Your task to perform on an android device: stop showing notifications on the lock screen Image 0: 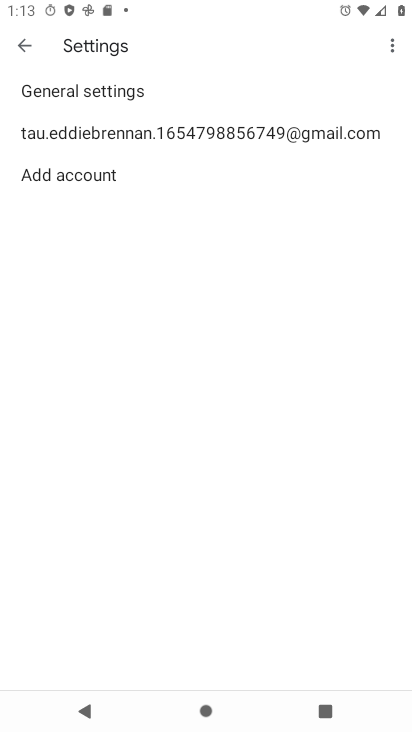
Step 0: press home button
Your task to perform on an android device: stop showing notifications on the lock screen Image 1: 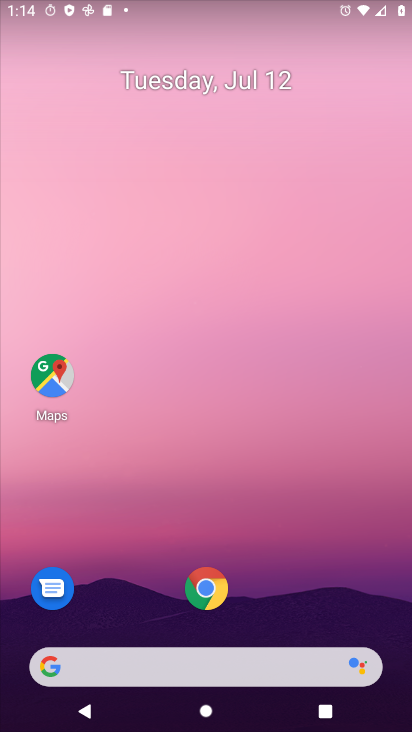
Step 1: drag from (197, 657) to (265, 30)
Your task to perform on an android device: stop showing notifications on the lock screen Image 2: 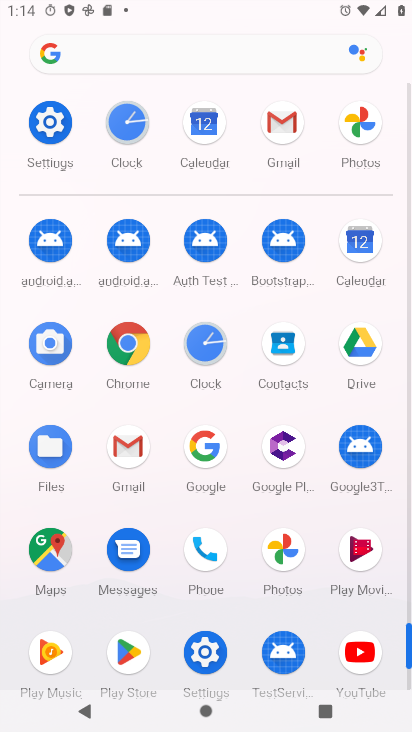
Step 2: click (51, 128)
Your task to perform on an android device: stop showing notifications on the lock screen Image 3: 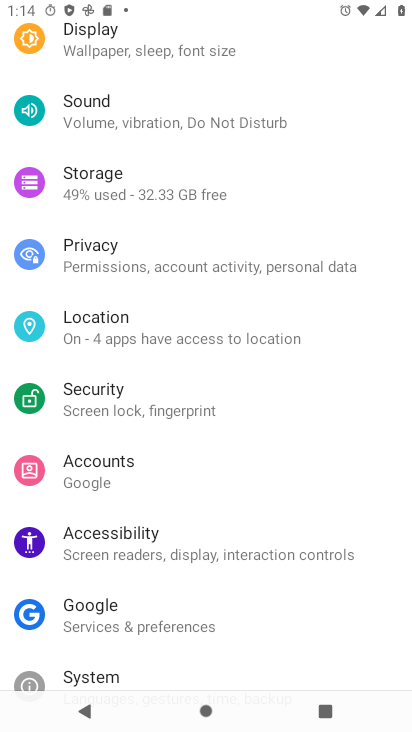
Step 3: drag from (286, 74) to (310, 537)
Your task to perform on an android device: stop showing notifications on the lock screen Image 4: 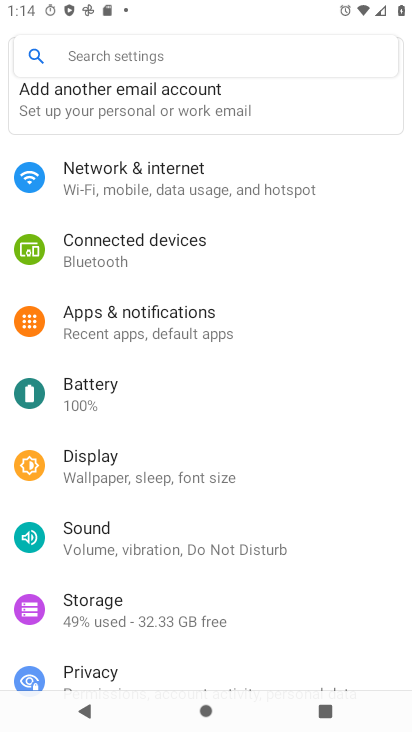
Step 4: click (180, 307)
Your task to perform on an android device: stop showing notifications on the lock screen Image 5: 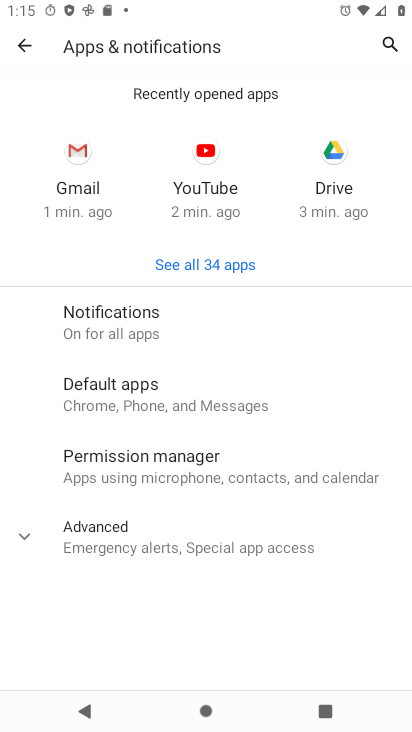
Step 5: click (143, 325)
Your task to perform on an android device: stop showing notifications on the lock screen Image 6: 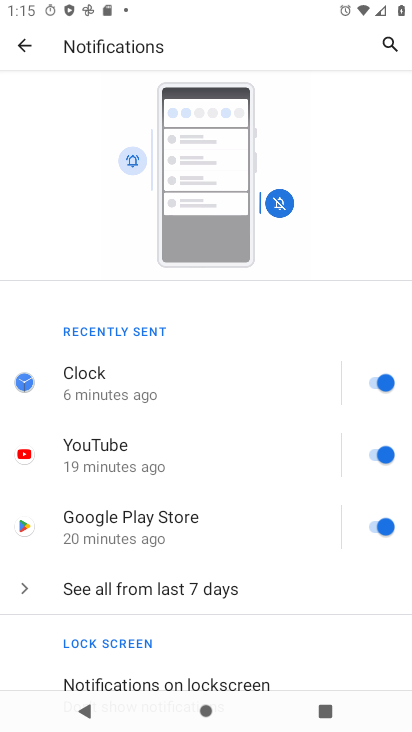
Step 6: drag from (232, 585) to (290, 236)
Your task to perform on an android device: stop showing notifications on the lock screen Image 7: 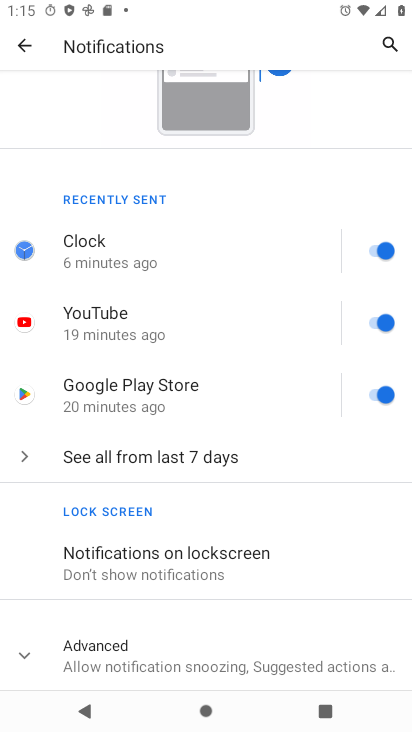
Step 7: click (202, 555)
Your task to perform on an android device: stop showing notifications on the lock screen Image 8: 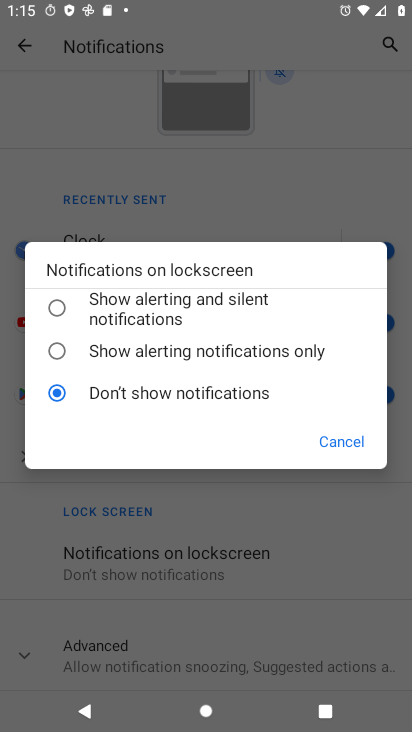
Step 8: task complete